Your task to perform on an android device: Open my contact list Image 0: 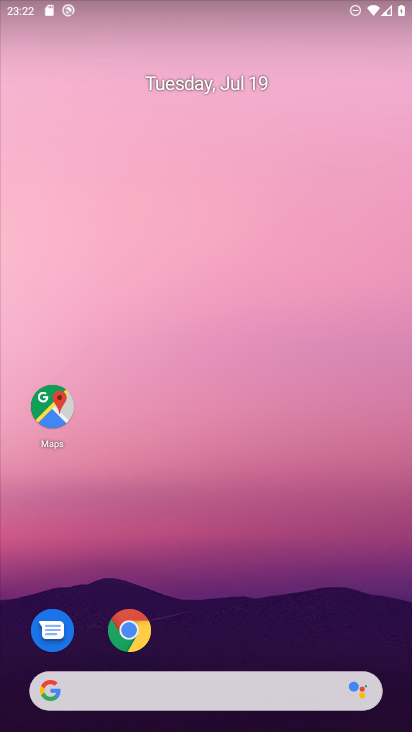
Step 0: drag from (209, 619) to (196, 239)
Your task to perform on an android device: Open my contact list Image 1: 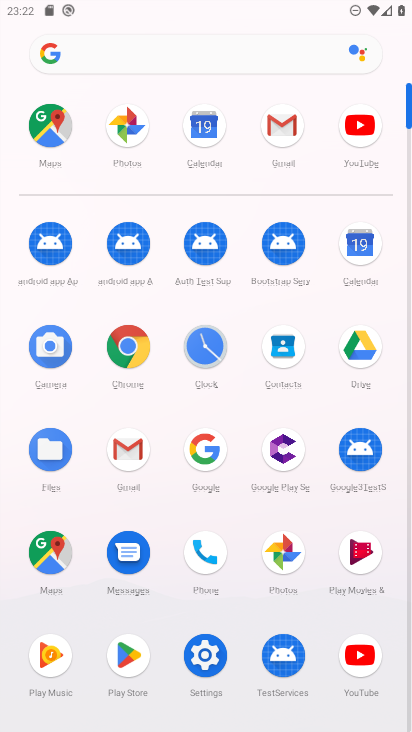
Step 1: click (284, 342)
Your task to perform on an android device: Open my contact list Image 2: 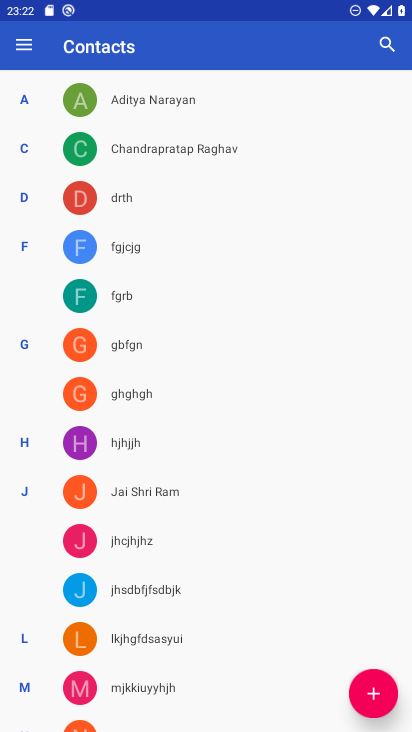
Step 2: task complete